Your task to perform on an android device: see creations saved in the google photos Image 0: 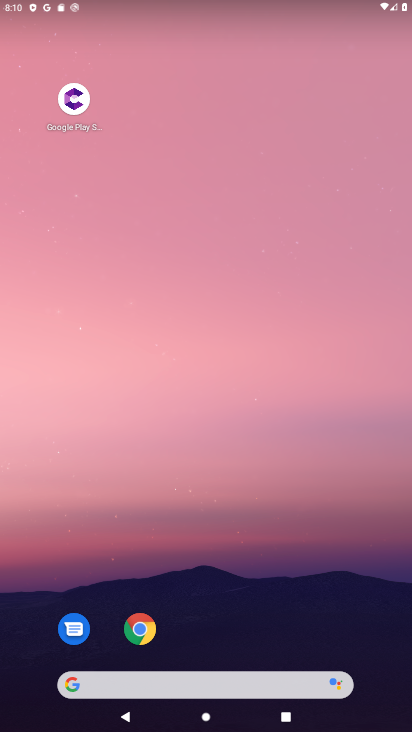
Step 0: drag from (182, 639) to (165, 183)
Your task to perform on an android device: see creations saved in the google photos Image 1: 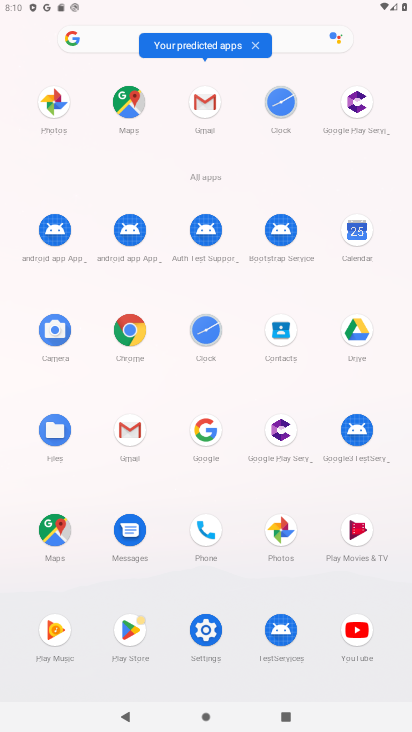
Step 1: click (165, 183)
Your task to perform on an android device: see creations saved in the google photos Image 2: 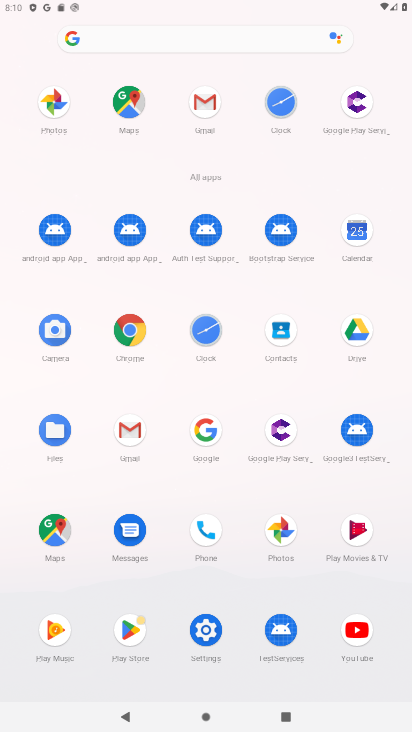
Step 2: click (57, 103)
Your task to perform on an android device: see creations saved in the google photos Image 3: 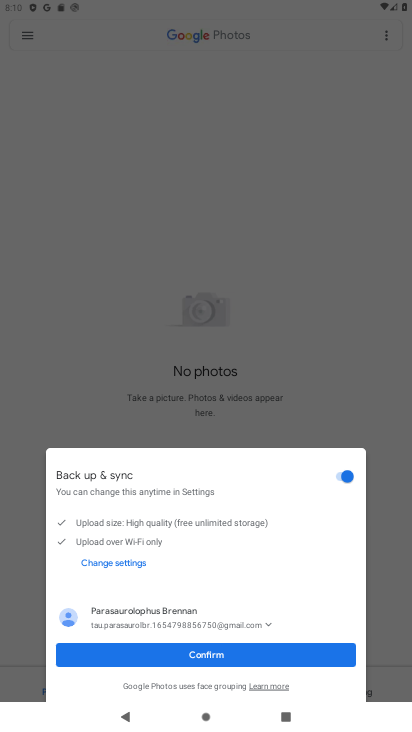
Step 3: click (162, 651)
Your task to perform on an android device: see creations saved in the google photos Image 4: 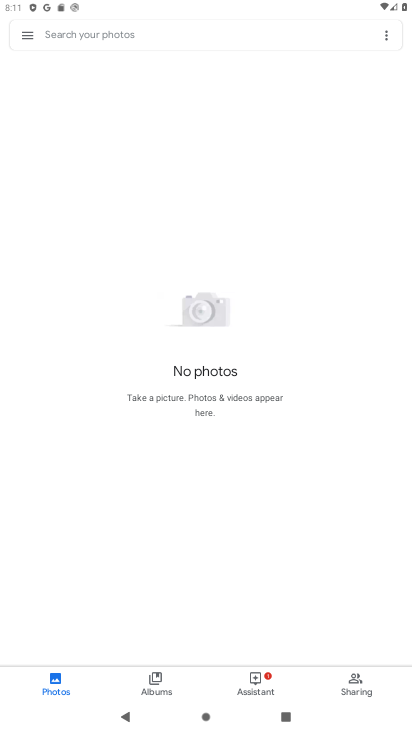
Step 4: click (26, 40)
Your task to perform on an android device: see creations saved in the google photos Image 5: 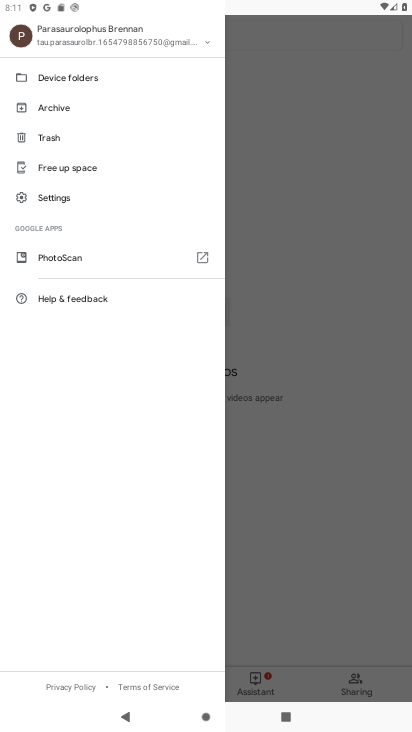
Step 5: click (26, 40)
Your task to perform on an android device: see creations saved in the google photos Image 6: 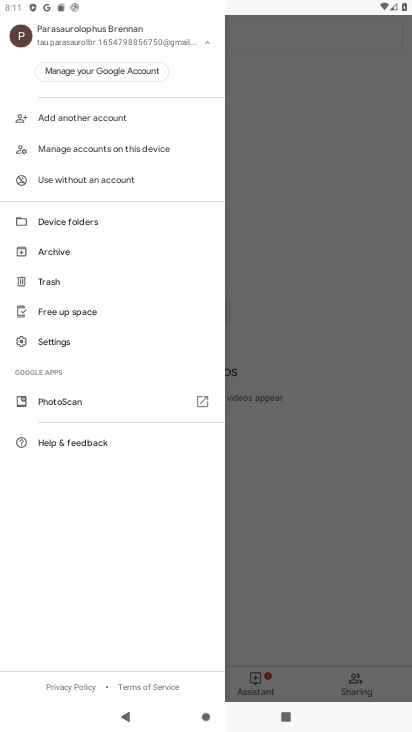
Step 6: task complete